Your task to perform on an android device: What is the recent news? Image 0: 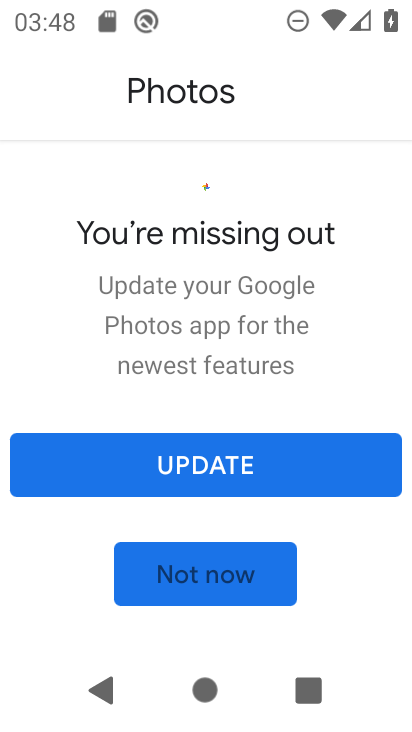
Step 0: press home button
Your task to perform on an android device: What is the recent news? Image 1: 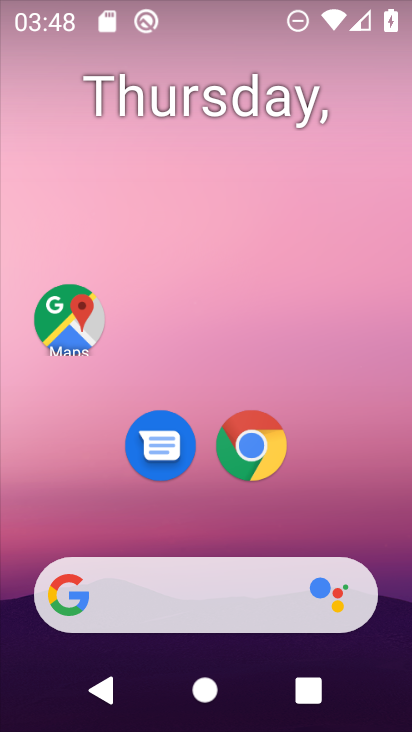
Step 1: click (119, 589)
Your task to perform on an android device: What is the recent news? Image 2: 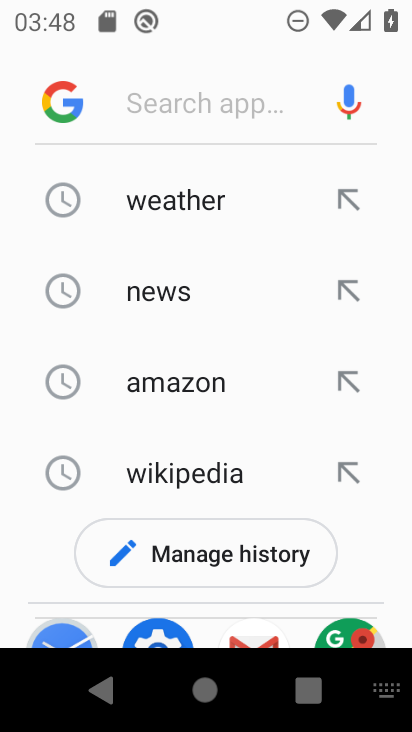
Step 2: click (163, 115)
Your task to perform on an android device: What is the recent news? Image 3: 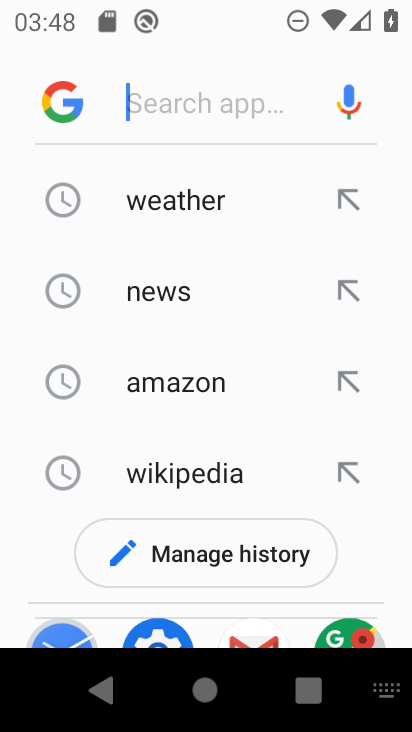
Step 3: type "recent  news"
Your task to perform on an android device: What is the recent news? Image 4: 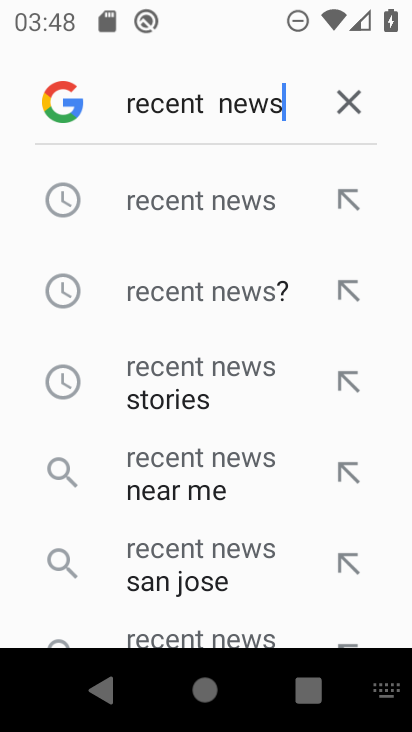
Step 4: click (138, 203)
Your task to perform on an android device: What is the recent news? Image 5: 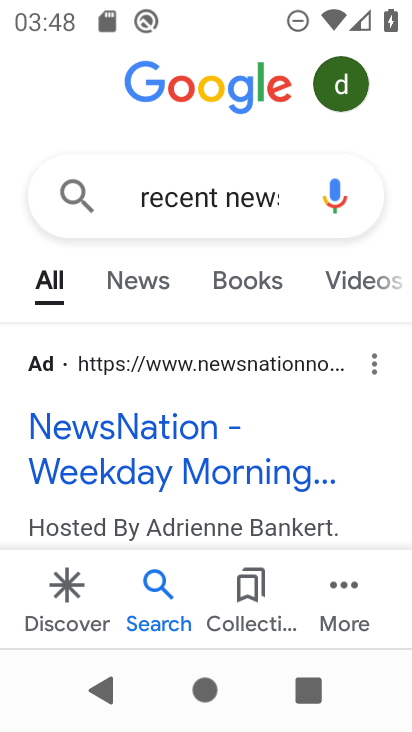
Step 5: click (138, 283)
Your task to perform on an android device: What is the recent news? Image 6: 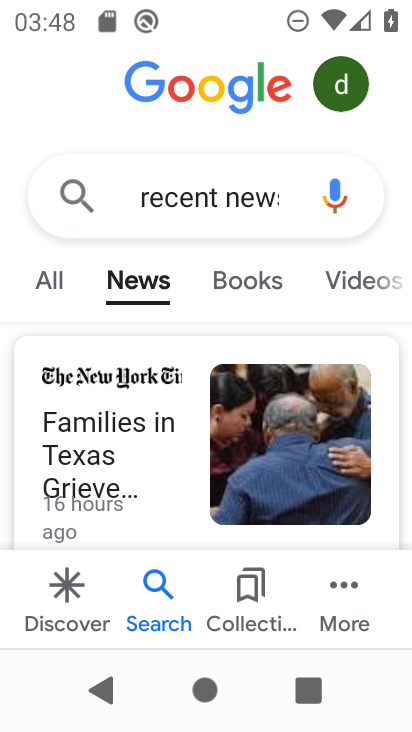
Step 6: drag from (120, 457) to (144, 158)
Your task to perform on an android device: What is the recent news? Image 7: 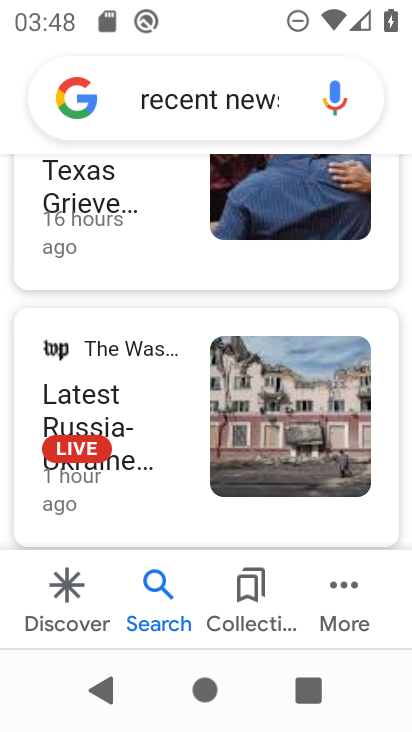
Step 7: drag from (125, 467) to (146, 211)
Your task to perform on an android device: What is the recent news? Image 8: 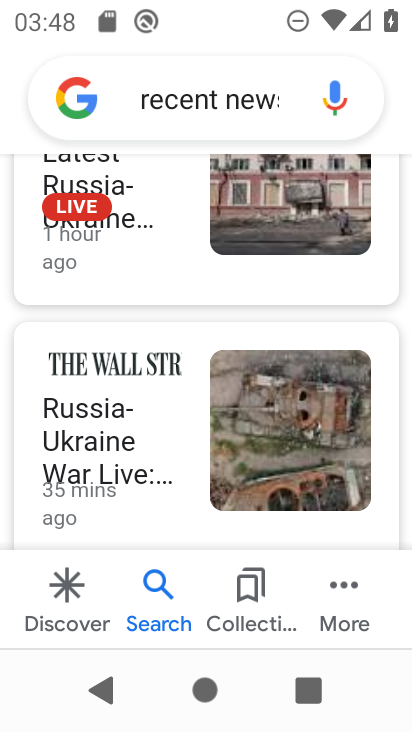
Step 8: click (98, 412)
Your task to perform on an android device: What is the recent news? Image 9: 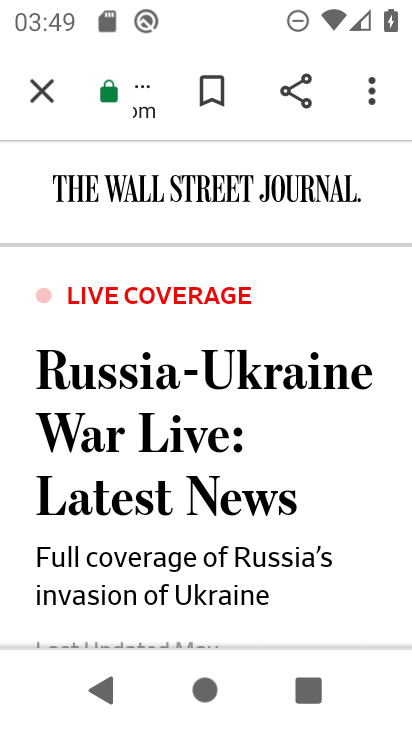
Step 9: task complete